Your task to perform on an android device: Open location settings Image 0: 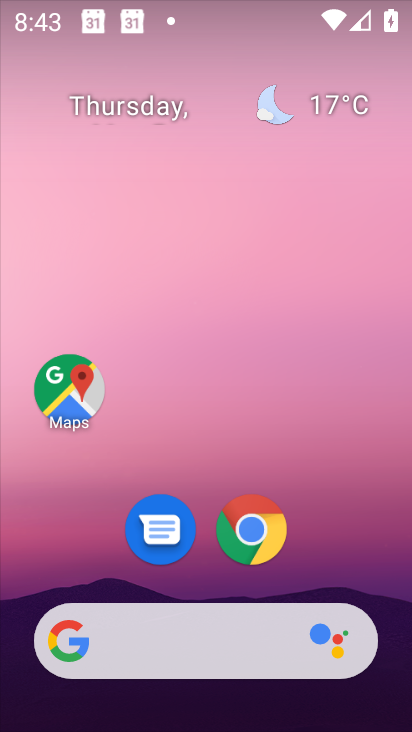
Step 0: drag from (335, 551) to (262, 31)
Your task to perform on an android device: Open location settings Image 1: 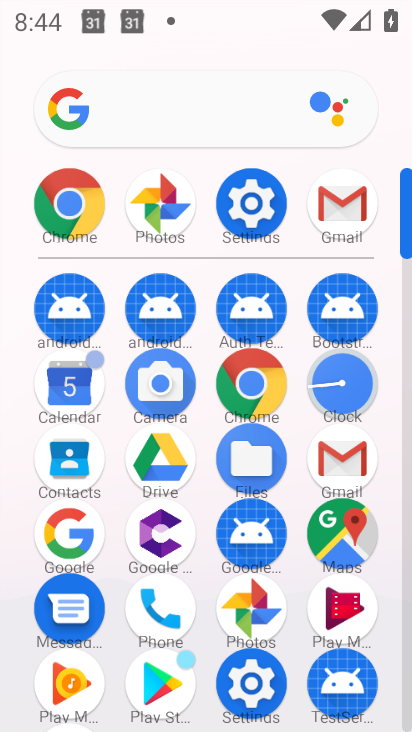
Step 1: click (259, 210)
Your task to perform on an android device: Open location settings Image 2: 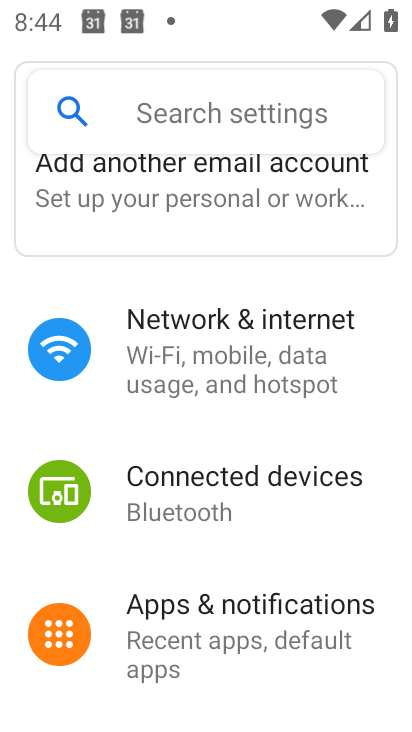
Step 2: drag from (263, 684) to (234, 295)
Your task to perform on an android device: Open location settings Image 3: 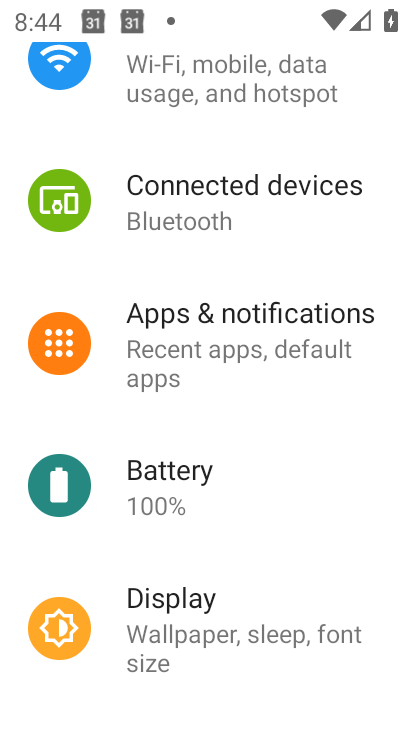
Step 3: drag from (227, 544) to (202, 197)
Your task to perform on an android device: Open location settings Image 4: 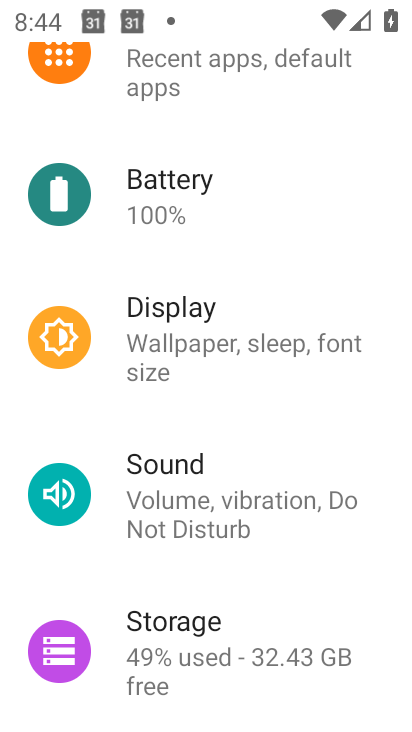
Step 4: drag from (220, 582) to (167, 228)
Your task to perform on an android device: Open location settings Image 5: 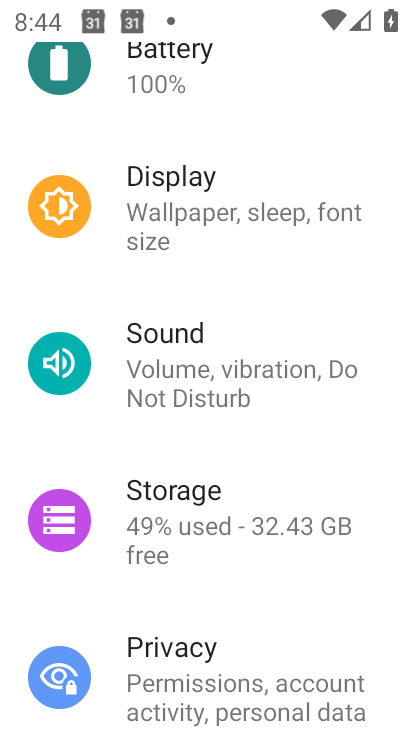
Step 5: drag from (198, 593) to (168, 180)
Your task to perform on an android device: Open location settings Image 6: 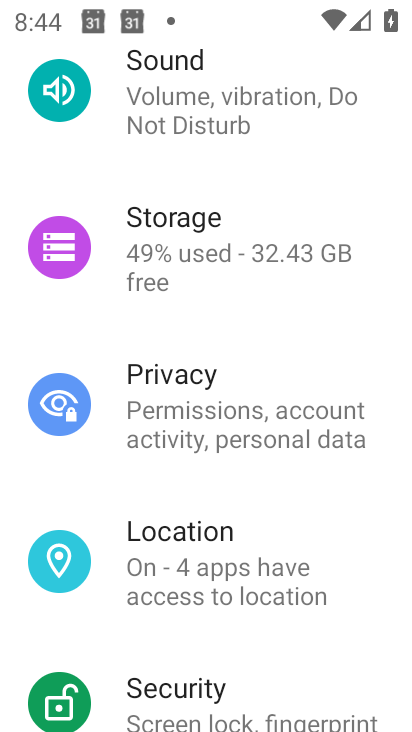
Step 6: click (183, 534)
Your task to perform on an android device: Open location settings Image 7: 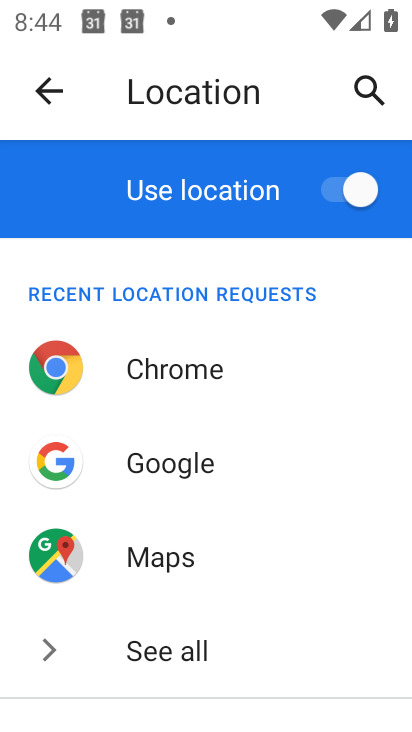
Step 7: task complete